Your task to perform on an android device: Show the shopping cart on bestbuy. Add bose quietcomfort 35 to the cart on bestbuy, then select checkout. Image 0: 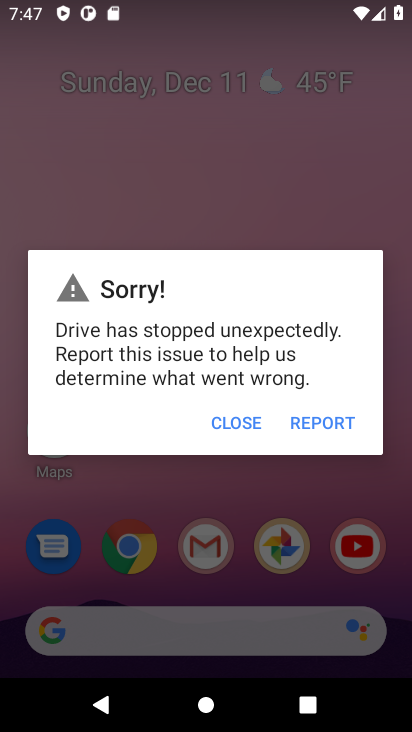
Step 0: press home button
Your task to perform on an android device: Show the shopping cart on bestbuy. Add bose quietcomfort 35 to the cart on bestbuy, then select checkout. Image 1: 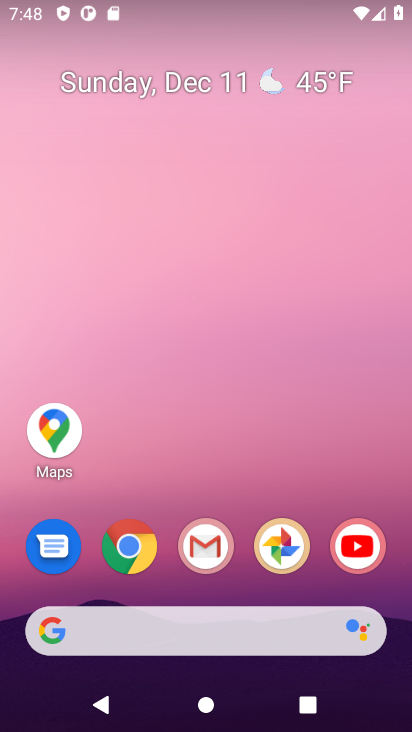
Step 1: click (130, 551)
Your task to perform on an android device: Show the shopping cart on bestbuy. Add bose quietcomfort 35 to the cart on bestbuy, then select checkout. Image 2: 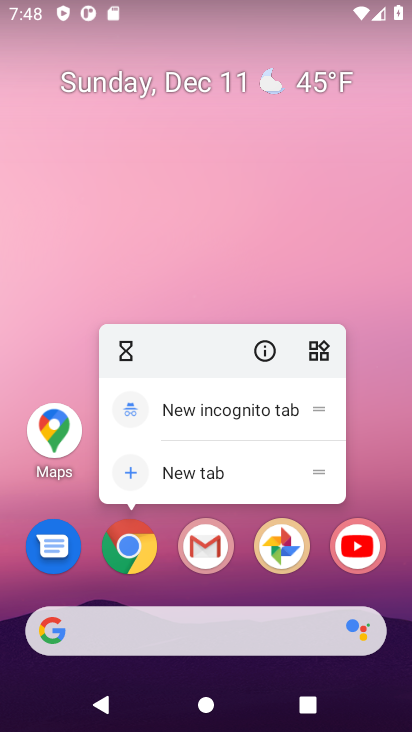
Step 2: click (130, 551)
Your task to perform on an android device: Show the shopping cart on bestbuy. Add bose quietcomfort 35 to the cart on bestbuy, then select checkout. Image 3: 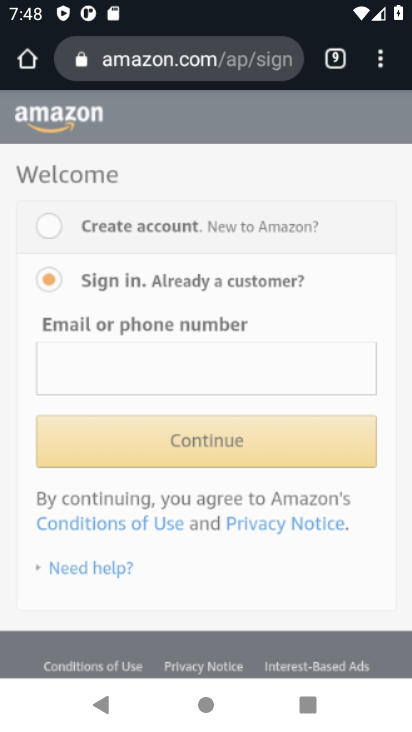
Step 3: click (152, 60)
Your task to perform on an android device: Show the shopping cart on bestbuy. Add bose quietcomfort 35 to the cart on bestbuy, then select checkout. Image 4: 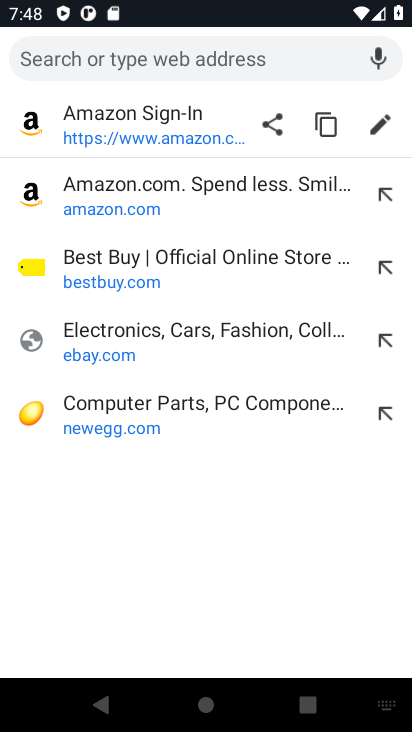
Step 4: click (91, 272)
Your task to perform on an android device: Show the shopping cart on bestbuy. Add bose quietcomfort 35 to the cart on bestbuy, then select checkout. Image 5: 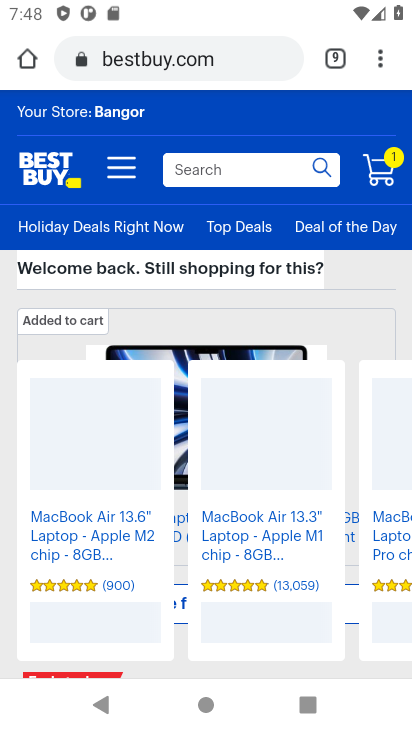
Step 5: click (390, 171)
Your task to perform on an android device: Show the shopping cart on bestbuy. Add bose quietcomfort 35 to the cart on bestbuy, then select checkout. Image 6: 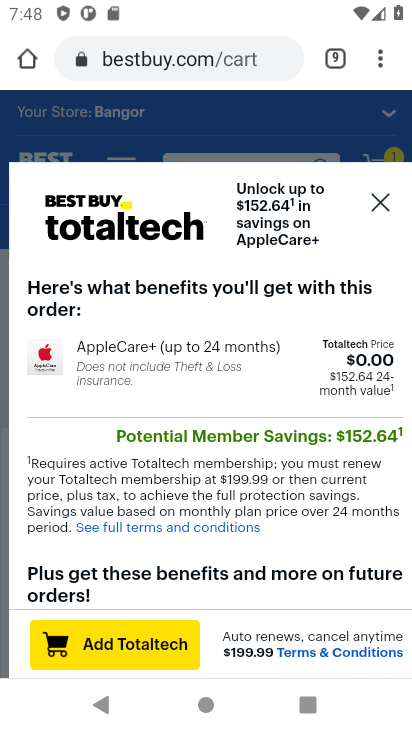
Step 6: click (381, 201)
Your task to perform on an android device: Show the shopping cart on bestbuy. Add bose quietcomfort 35 to the cart on bestbuy, then select checkout. Image 7: 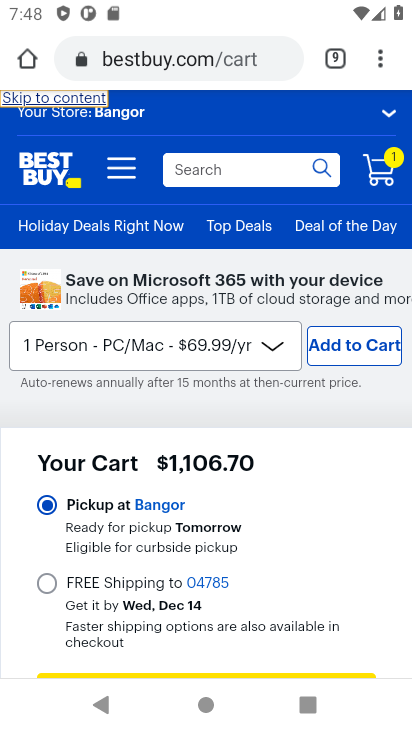
Step 7: drag from (259, 466) to (259, 228)
Your task to perform on an android device: Show the shopping cart on bestbuy. Add bose quietcomfort 35 to the cart on bestbuy, then select checkout. Image 8: 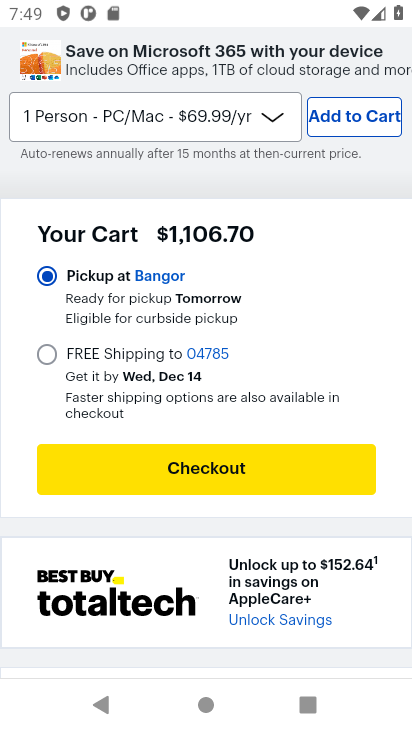
Step 8: drag from (290, 294) to (294, 544)
Your task to perform on an android device: Show the shopping cart on bestbuy. Add bose quietcomfort 35 to the cart on bestbuy, then select checkout. Image 9: 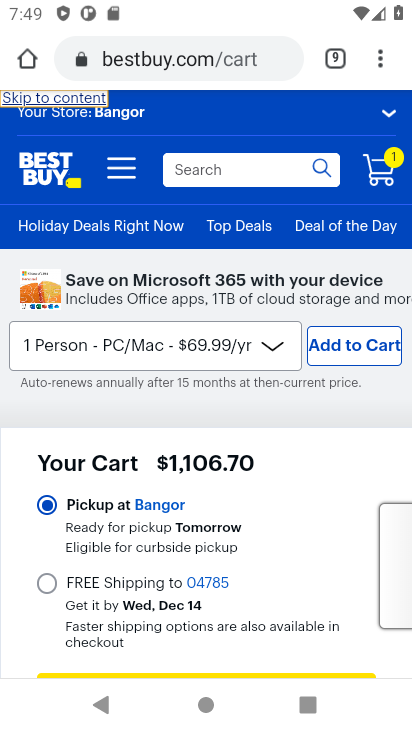
Step 9: click (200, 175)
Your task to perform on an android device: Show the shopping cart on bestbuy. Add bose quietcomfort 35 to the cart on bestbuy, then select checkout. Image 10: 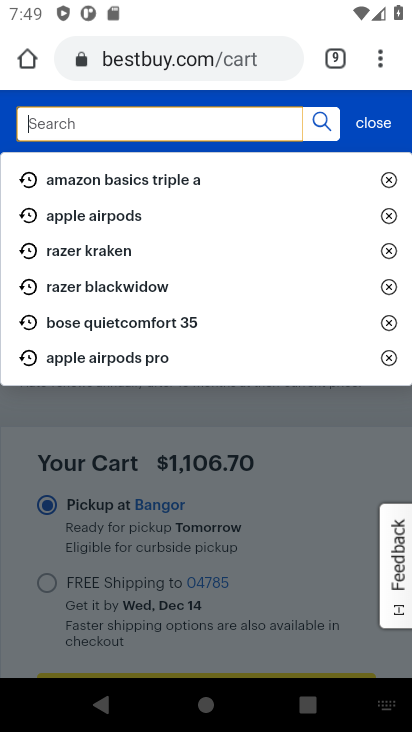
Step 10: type "bose quietcomfort 35 "
Your task to perform on an android device: Show the shopping cart on bestbuy. Add bose quietcomfort 35 to the cart on bestbuy, then select checkout. Image 11: 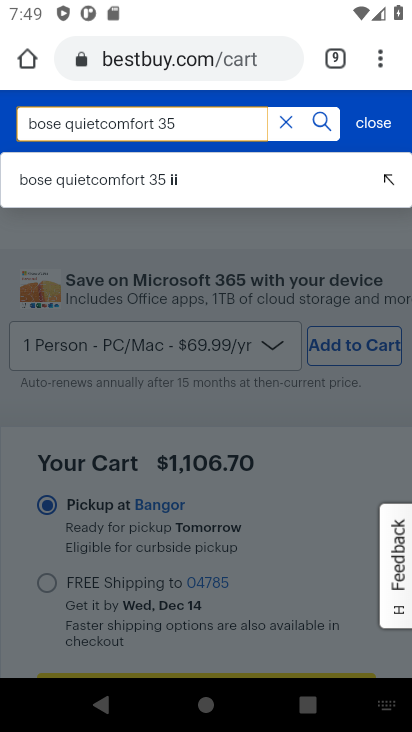
Step 11: click (317, 122)
Your task to perform on an android device: Show the shopping cart on bestbuy. Add bose quietcomfort 35 to the cart on bestbuy, then select checkout. Image 12: 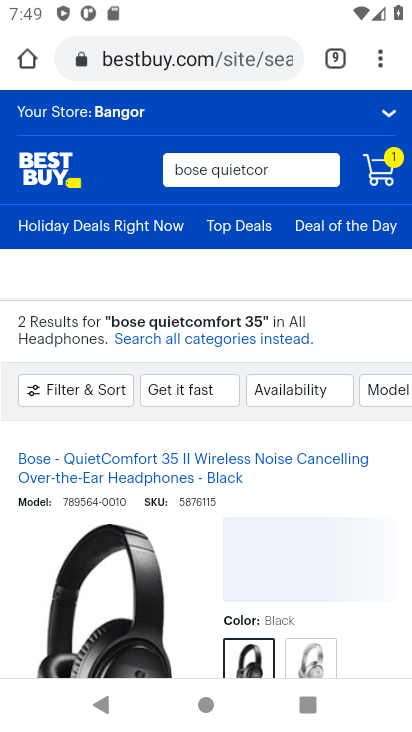
Step 12: task complete